Your task to perform on an android device: Open Maps and search for coffee Image 0: 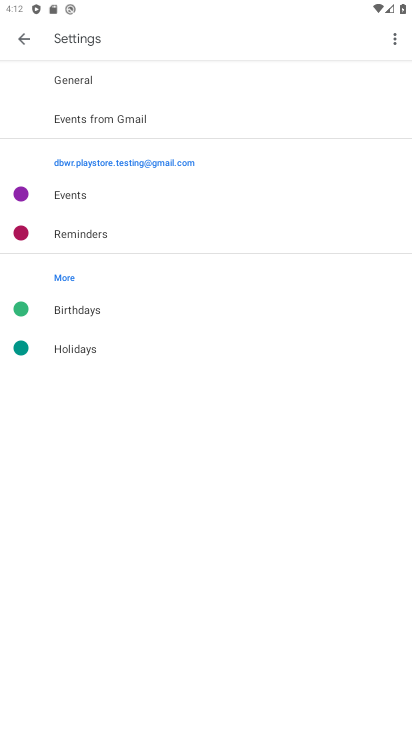
Step 0: press home button
Your task to perform on an android device: Open Maps and search for coffee Image 1: 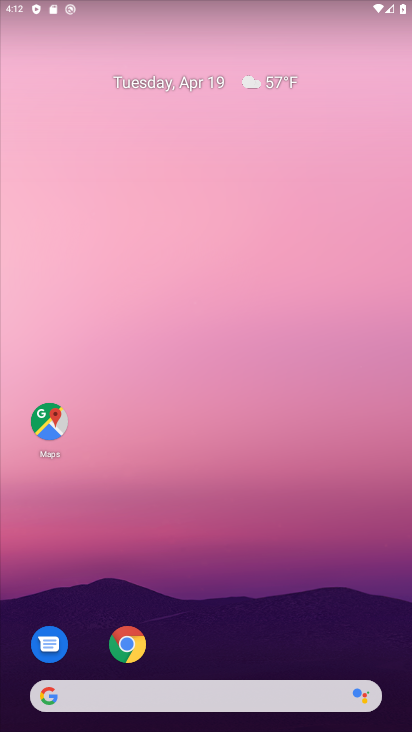
Step 1: drag from (300, 530) to (365, 18)
Your task to perform on an android device: Open Maps and search for coffee Image 2: 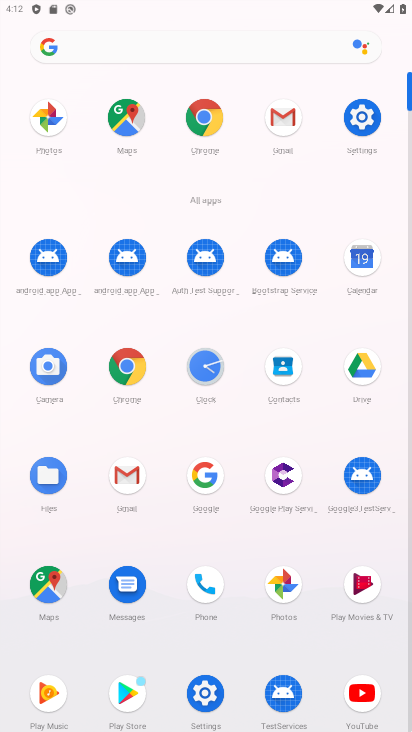
Step 2: click (109, 127)
Your task to perform on an android device: Open Maps and search for coffee Image 3: 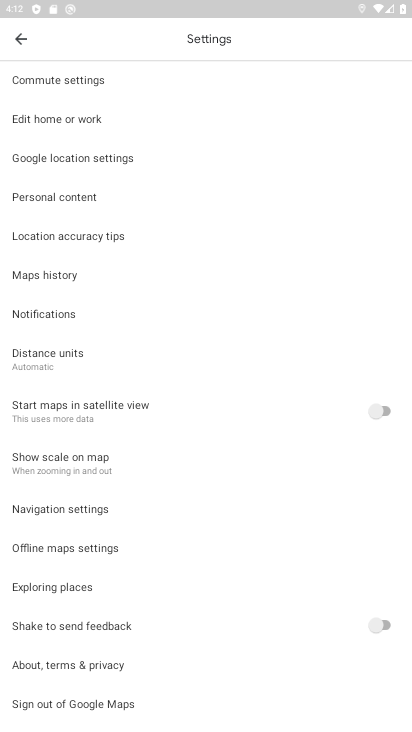
Step 3: click (11, 43)
Your task to perform on an android device: Open Maps and search for coffee Image 4: 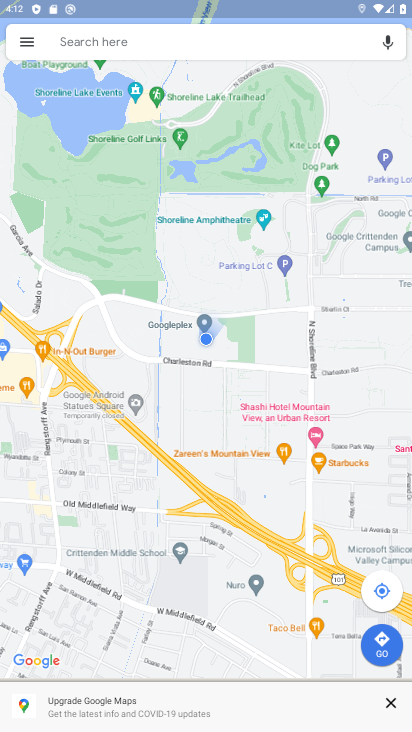
Step 4: click (138, 33)
Your task to perform on an android device: Open Maps and search for coffee Image 5: 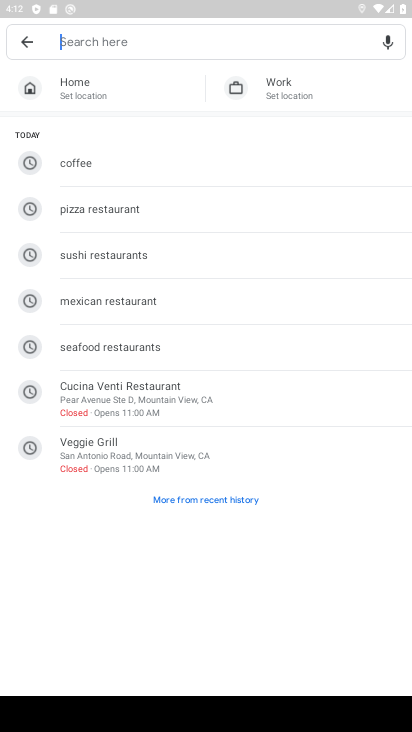
Step 5: click (122, 157)
Your task to perform on an android device: Open Maps and search for coffee Image 6: 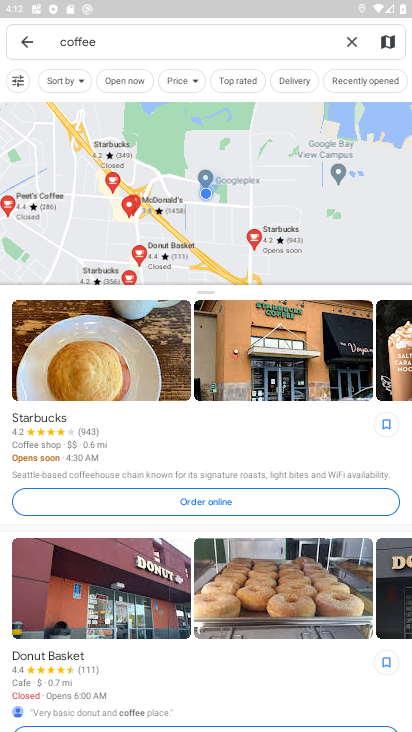
Step 6: task complete